Your task to perform on an android device: Go to Wikipedia Image 0: 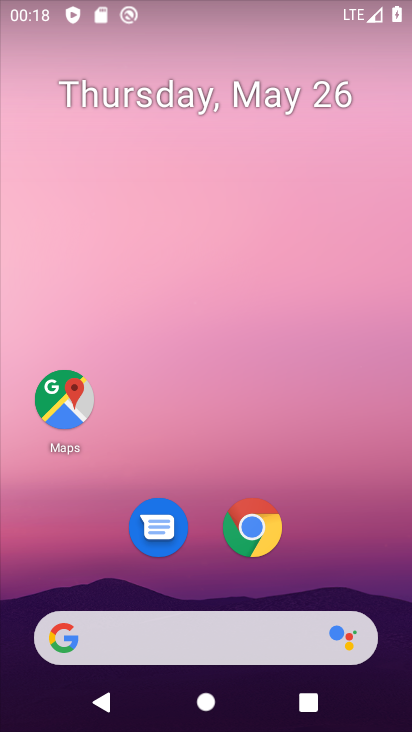
Step 0: click (251, 522)
Your task to perform on an android device: Go to Wikipedia Image 1: 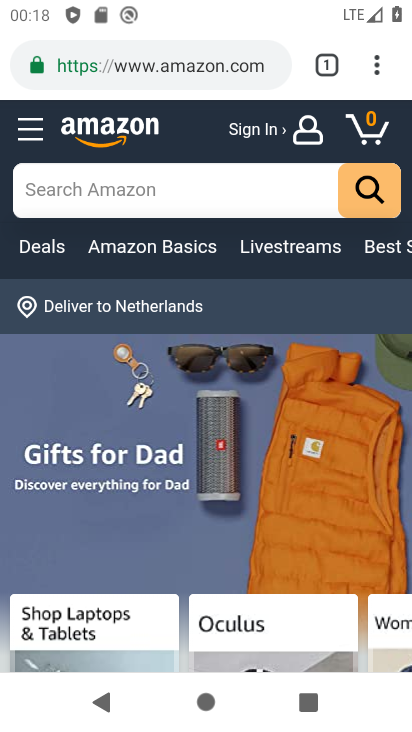
Step 1: click (318, 83)
Your task to perform on an android device: Go to Wikipedia Image 2: 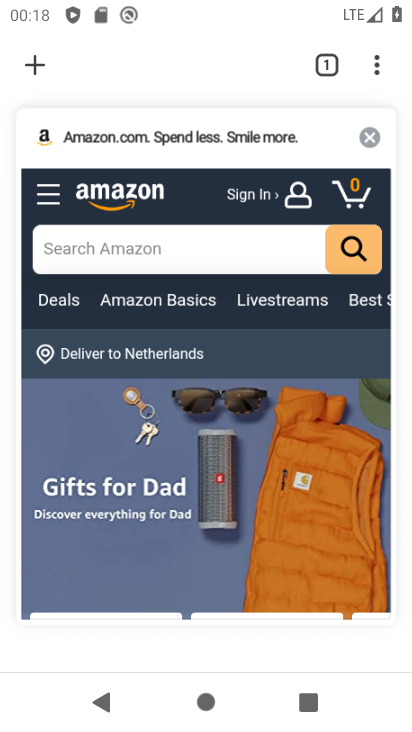
Step 2: click (44, 71)
Your task to perform on an android device: Go to Wikipedia Image 3: 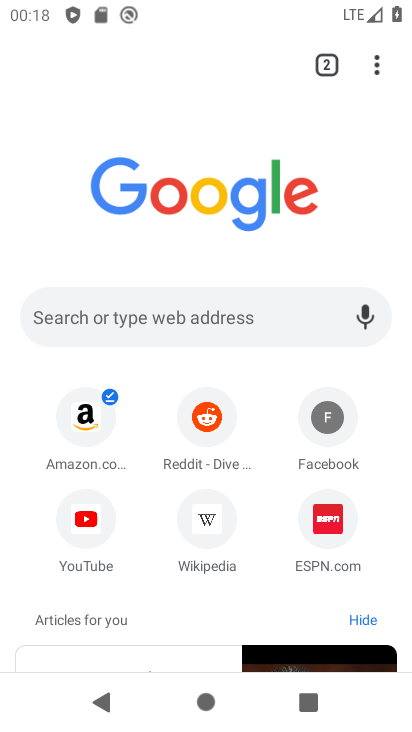
Step 3: click (219, 501)
Your task to perform on an android device: Go to Wikipedia Image 4: 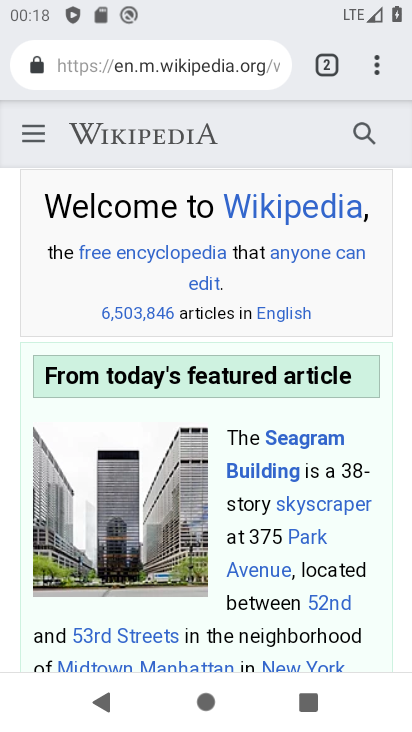
Step 4: task complete